Your task to perform on an android device: turn off airplane mode Image 0: 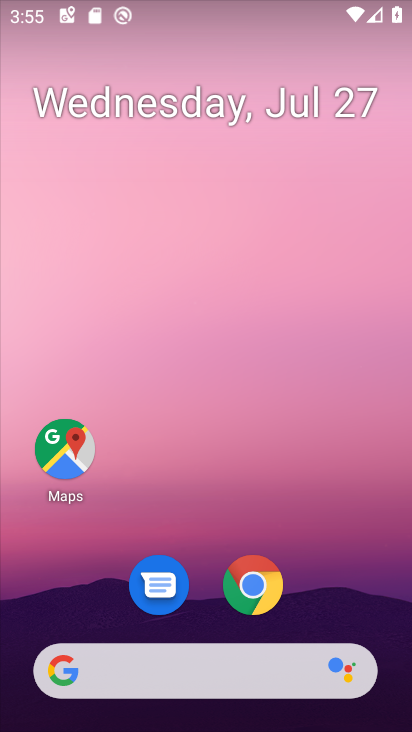
Step 0: drag from (324, 583) to (340, 36)
Your task to perform on an android device: turn off airplane mode Image 1: 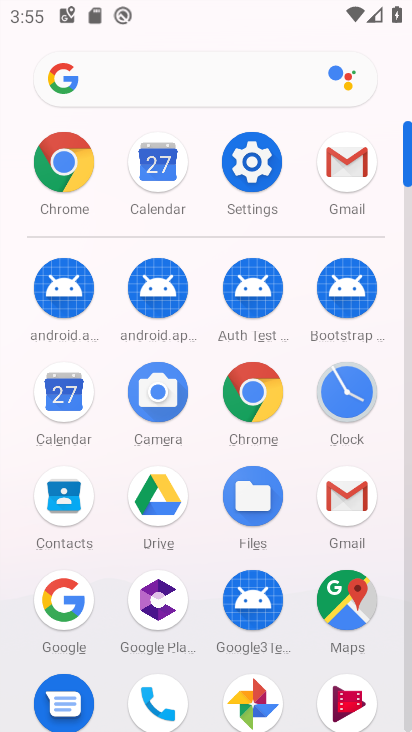
Step 1: click (258, 161)
Your task to perform on an android device: turn off airplane mode Image 2: 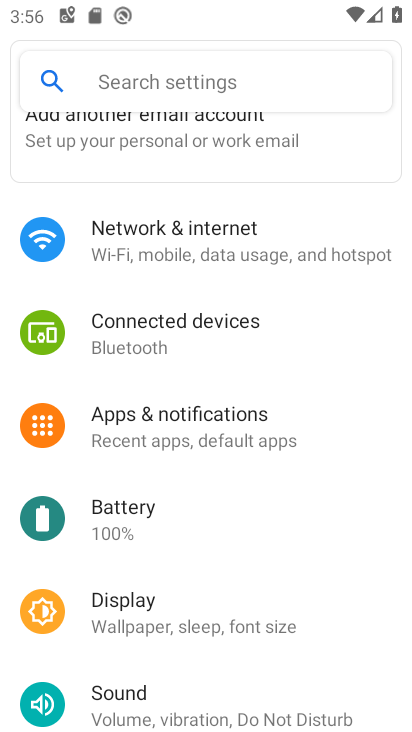
Step 2: click (257, 237)
Your task to perform on an android device: turn off airplane mode Image 3: 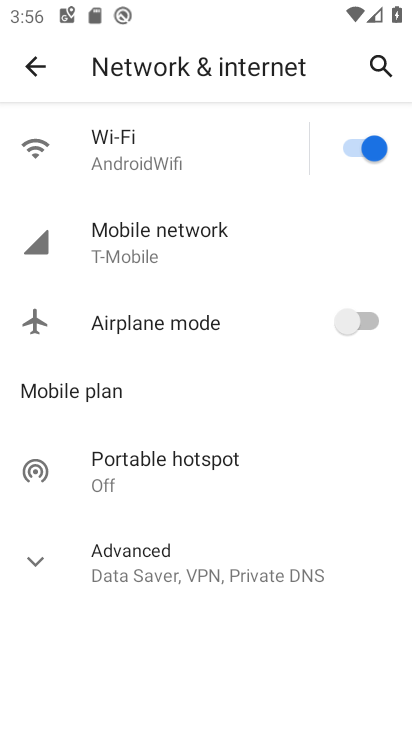
Step 3: task complete